Your task to perform on an android device: add a contact in the contacts app Image 0: 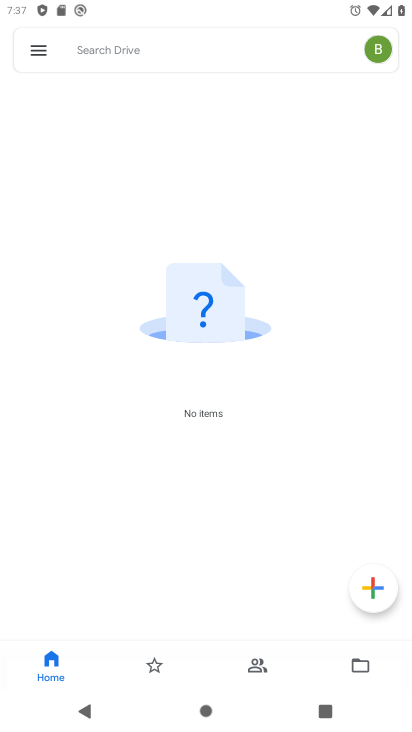
Step 0: press home button
Your task to perform on an android device: add a contact in the contacts app Image 1: 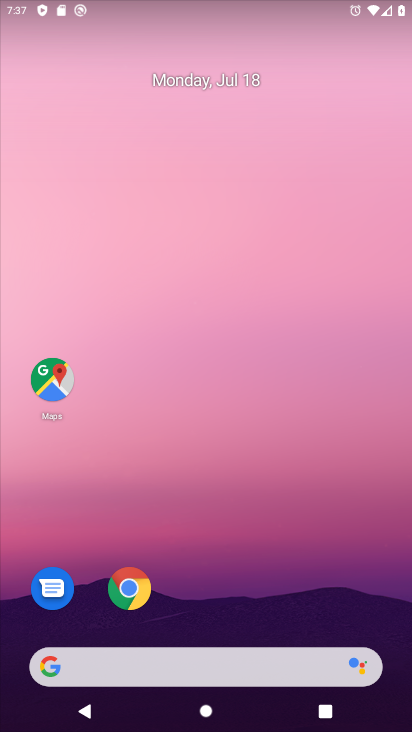
Step 1: drag from (233, 550) to (276, 0)
Your task to perform on an android device: add a contact in the contacts app Image 2: 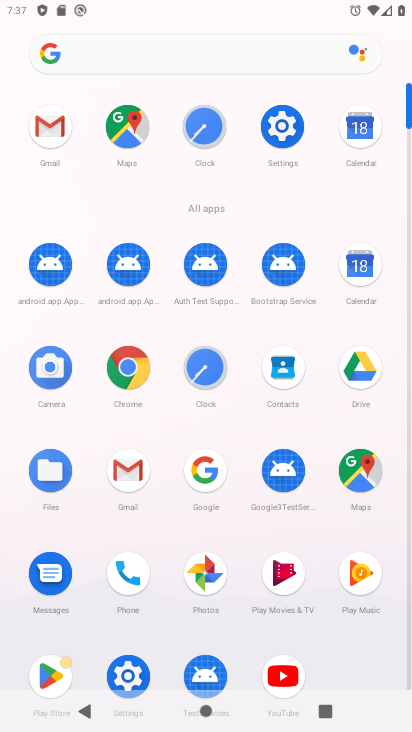
Step 2: click (294, 388)
Your task to perform on an android device: add a contact in the contacts app Image 3: 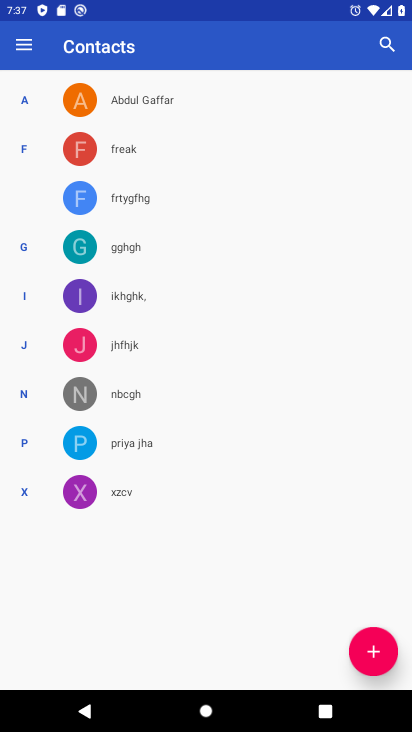
Step 3: click (401, 664)
Your task to perform on an android device: add a contact in the contacts app Image 4: 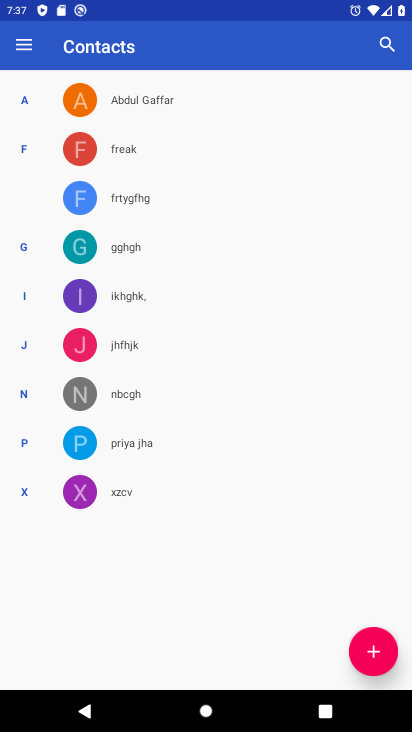
Step 4: click (384, 654)
Your task to perform on an android device: add a contact in the contacts app Image 5: 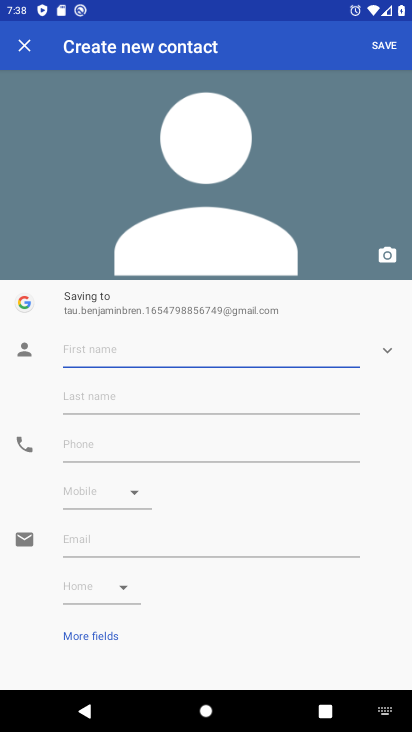
Step 5: type "threader"
Your task to perform on an android device: add a contact in the contacts app Image 6: 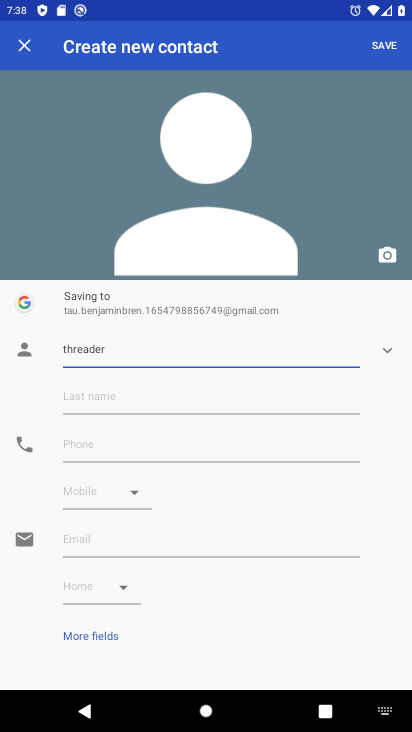
Step 6: click (378, 47)
Your task to perform on an android device: add a contact in the contacts app Image 7: 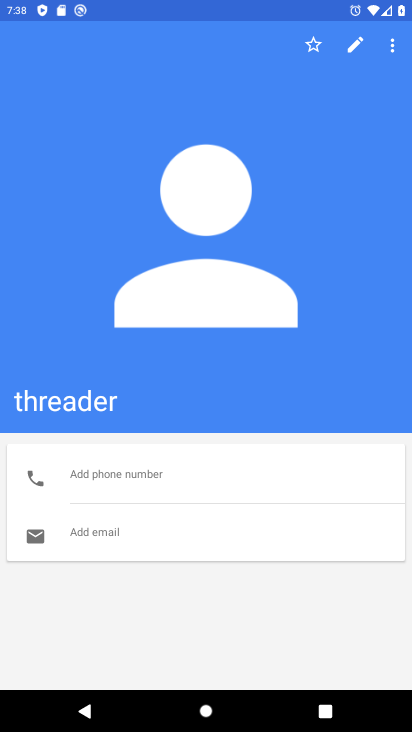
Step 7: task complete